Your task to perform on an android device: check storage Image 0: 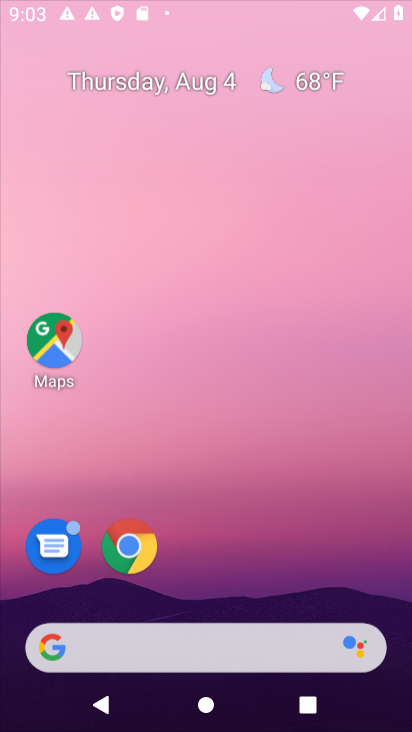
Step 0: press home button
Your task to perform on an android device: check storage Image 1: 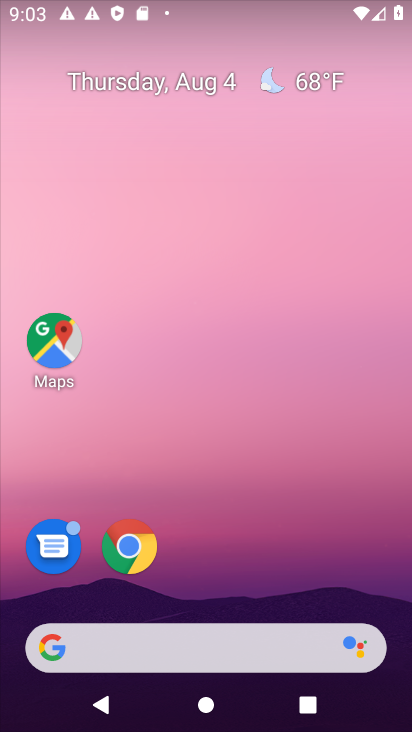
Step 1: drag from (227, 604) to (200, 120)
Your task to perform on an android device: check storage Image 2: 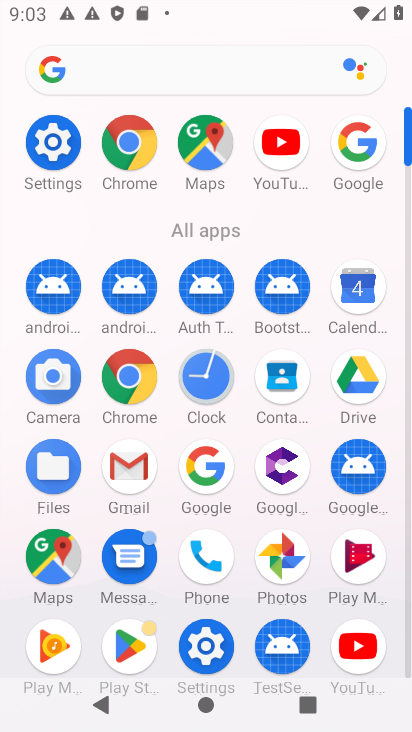
Step 2: click (52, 137)
Your task to perform on an android device: check storage Image 3: 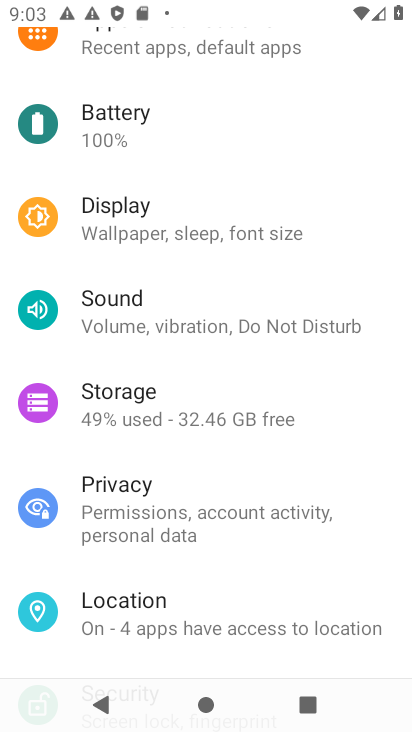
Step 3: click (122, 412)
Your task to perform on an android device: check storage Image 4: 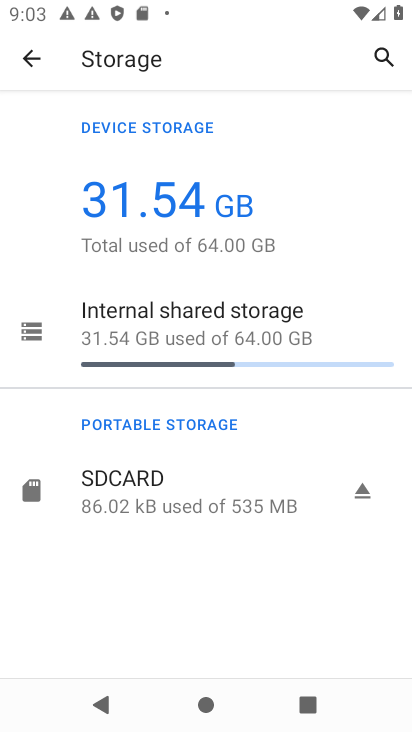
Step 4: task complete